Your task to perform on an android device: Search for vegetarian restaurants on Maps Image 0: 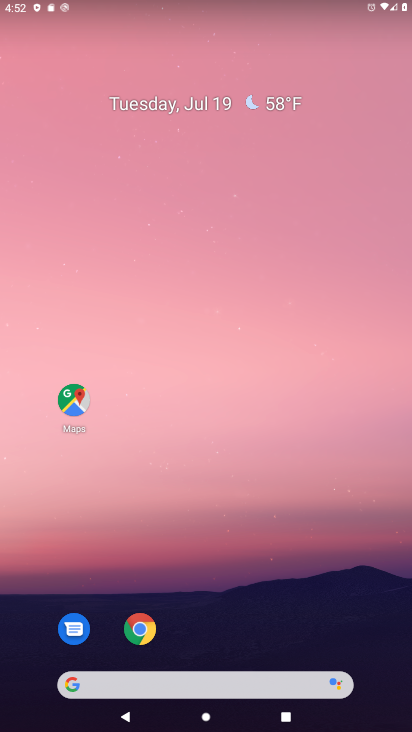
Step 0: click (153, 114)
Your task to perform on an android device: Search for vegetarian restaurants on Maps Image 1: 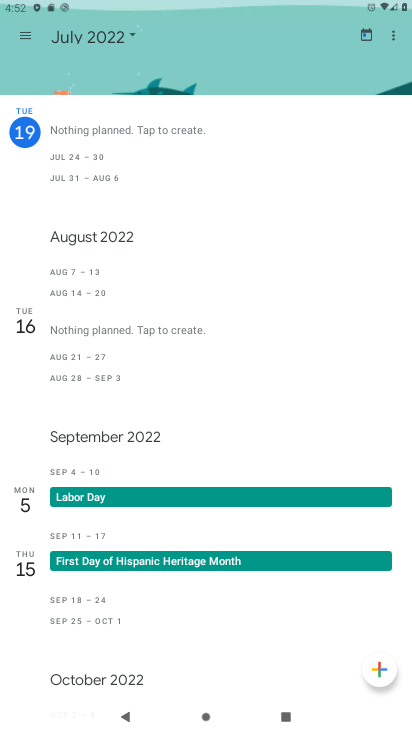
Step 1: press back button
Your task to perform on an android device: Search for vegetarian restaurants on Maps Image 2: 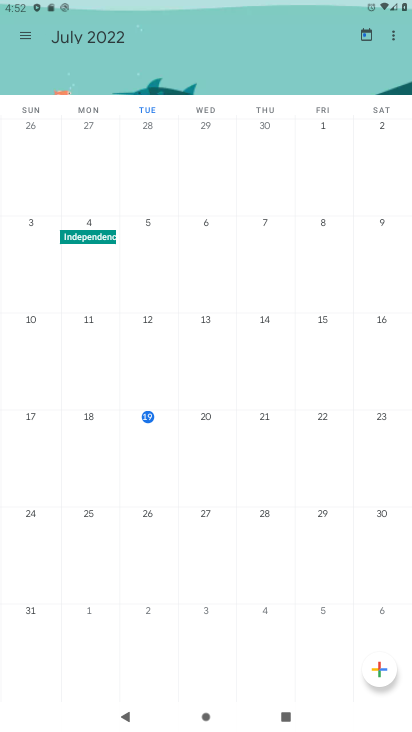
Step 2: press back button
Your task to perform on an android device: Search for vegetarian restaurants on Maps Image 3: 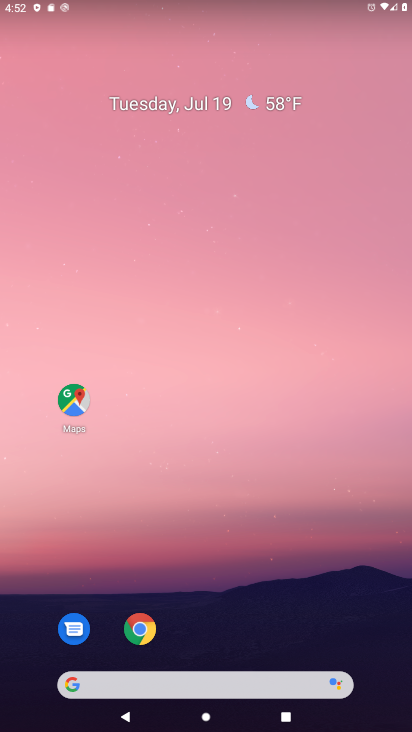
Step 3: drag from (252, 705) to (152, 123)
Your task to perform on an android device: Search for vegetarian restaurants on Maps Image 4: 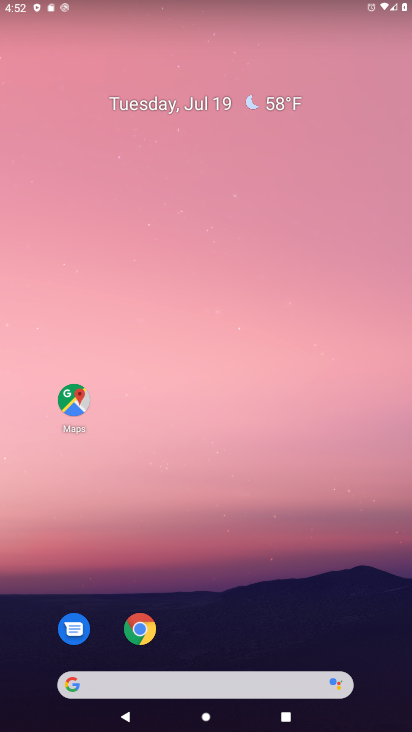
Step 4: drag from (231, 656) to (232, 105)
Your task to perform on an android device: Search for vegetarian restaurants on Maps Image 5: 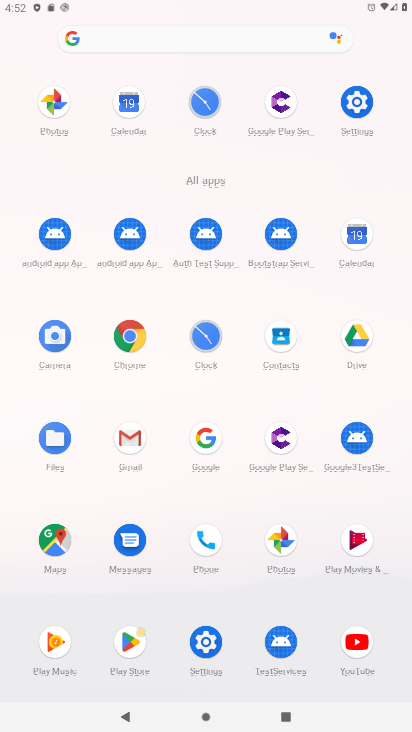
Step 5: click (43, 533)
Your task to perform on an android device: Search for vegetarian restaurants on Maps Image 6: 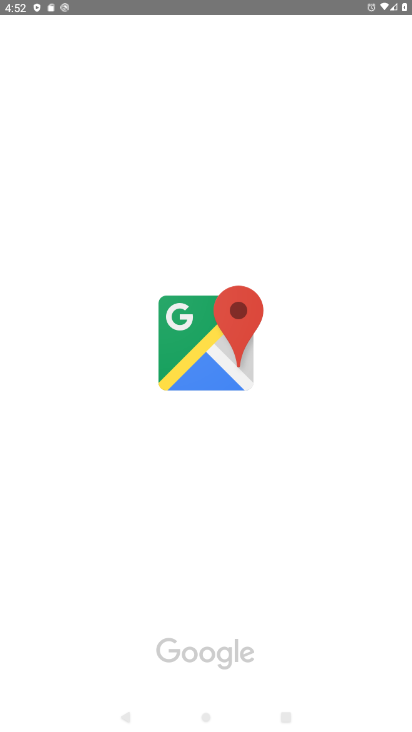
Step 6: click (42, 536)
Your task to perform on an android device: Search for vegetarian restaurants on Maps Image 7: 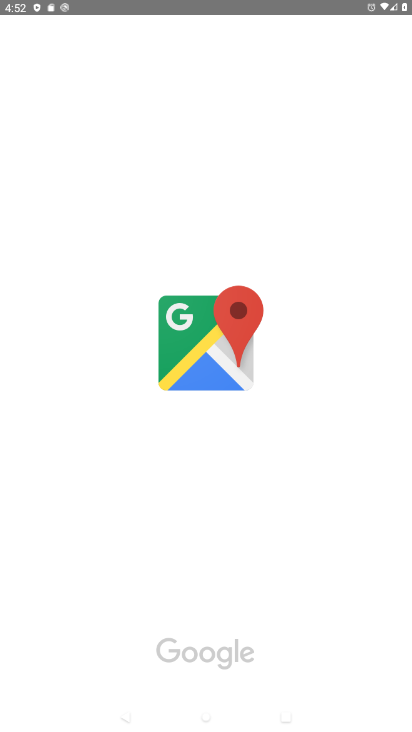
Step 7: click (42, 536)
Your task to perform on an android device: Search for vegetarian restaurants on Maps Image 8: 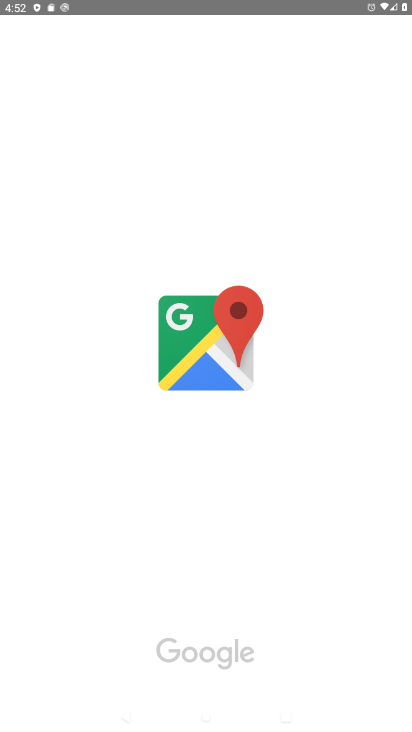
Step 8: click (199, 351)
Your task to perform on an android device: Search for vegetarian restaurants on Maps Image 9: 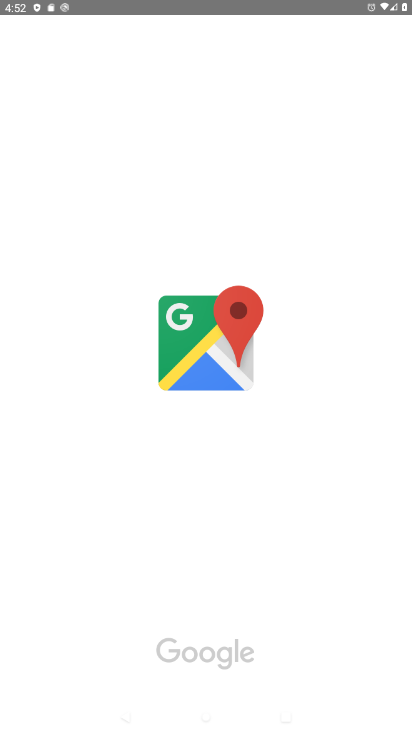
Step 9: click (200, 349)
Your task to perform on an android device: Search for vegetarian restaurants on Maps Image 10: 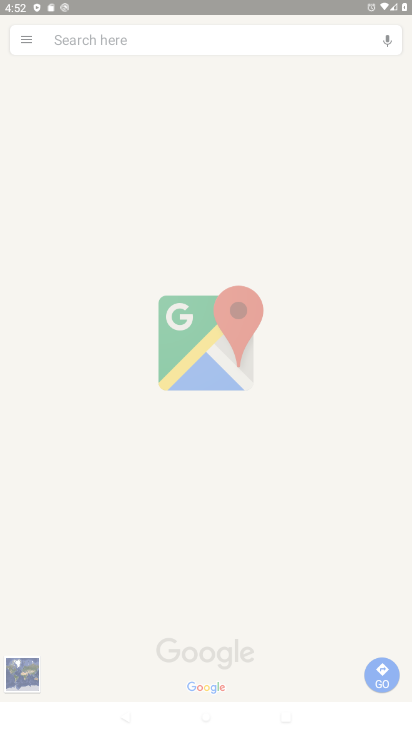
Step 10: click (217, 325)
Your task to perform on an android device: Search for vegetarian restaurants on Maps Image 11: 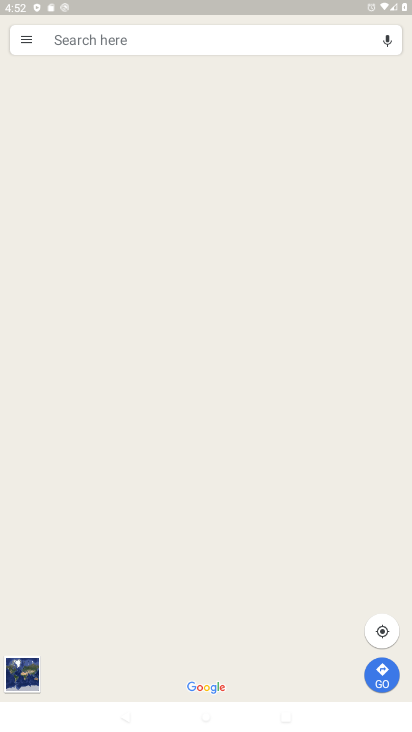
Step 11: click (216, 351)
Your task to perform on an android device: Search for vegetarian restaurants on Maps Image 12: 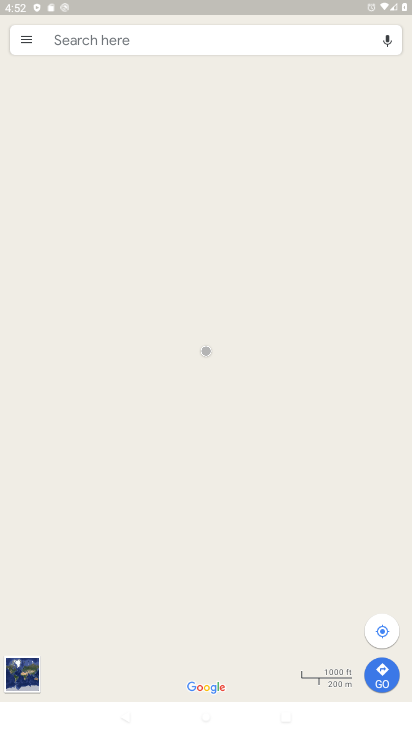
Step 12: click (73, 30)
Your task to perform on an android device: Search for vegetarian restaurants on Maps Image 13: 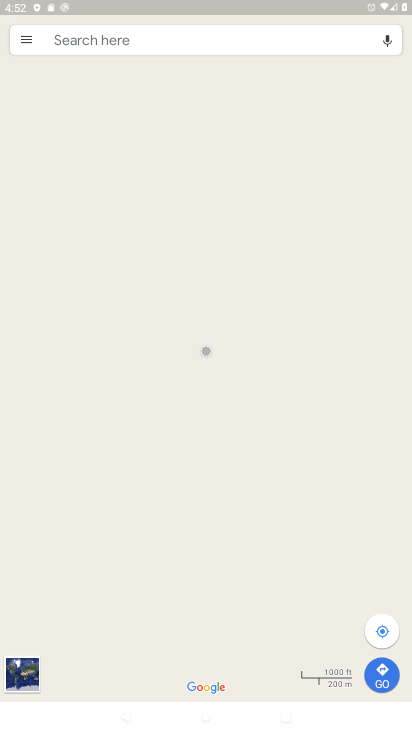
Step 13: click (85, 36)
Your task to perform on an android device: Search for vegetarian restaurants on Maps Image 14: 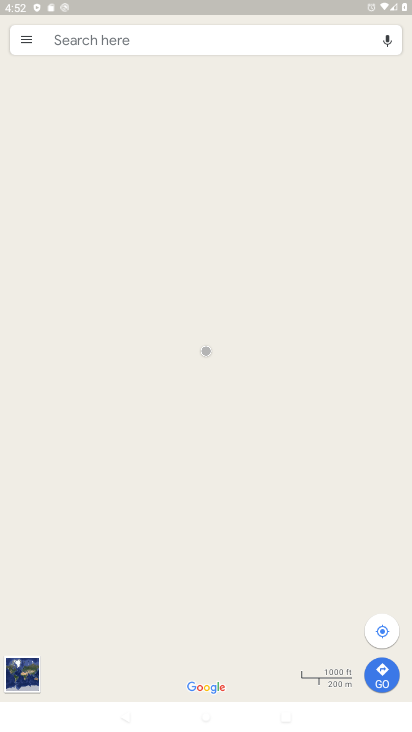
Step 14: click (86, 37)
Your task to perform on an android device: Search for vegetarian restaurants on Maps Image 15: 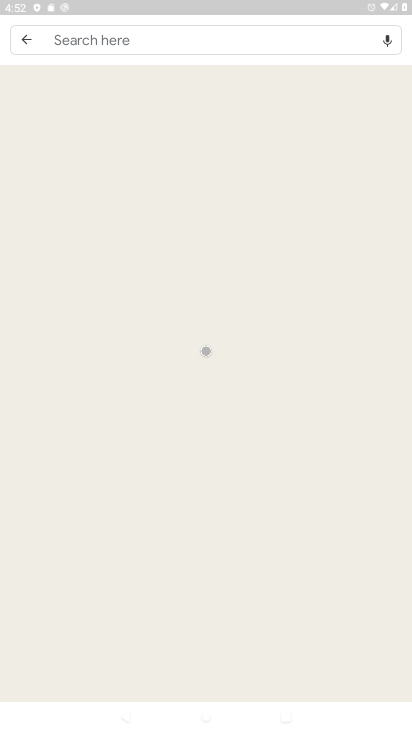
Step 15: click (83, 40)
Your task to perform on an android device: Search for vegetarian restaurants on Maps Image 16: 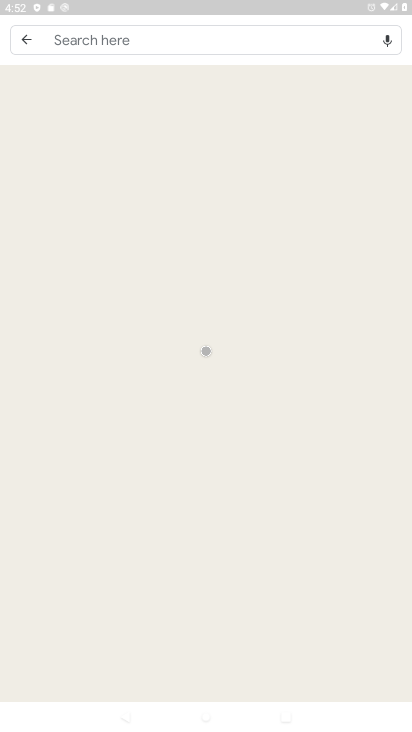
Step 16: click (84, 40)
Your task to perform on an android device: Search for vegetarian restaurants on Maps Image 17: 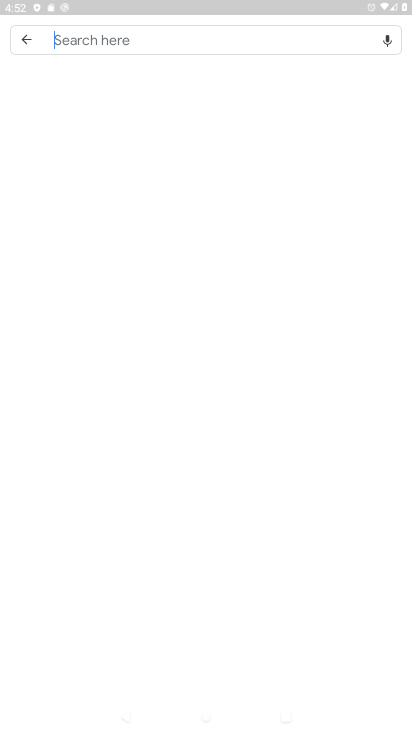
Step 17: click (84, 40)
Your task to perform on an android device: Search for vegetarian restaurants on Maps Image 18: 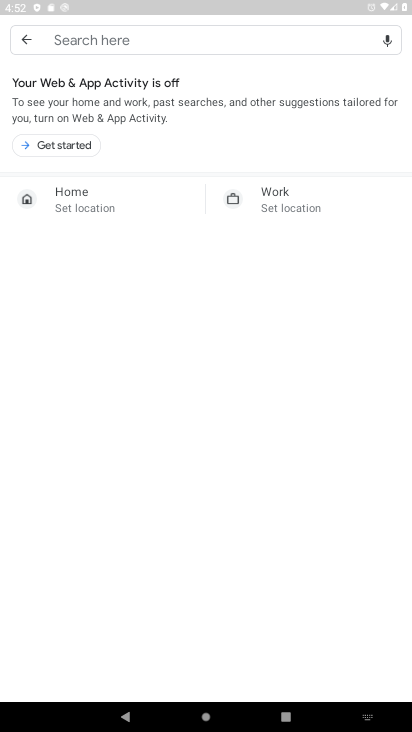
Step 18: click (84, 40)
Your task to perform on an android device: Search for vegetarian restaurants on Maps Image 19: 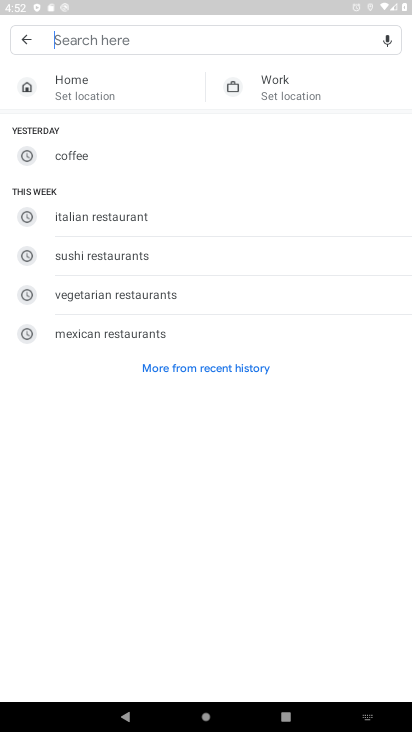
Step 19: click (105, 294)
Your task to perform on an android device: Search for vegetarian restaurants on Maps Image 20: 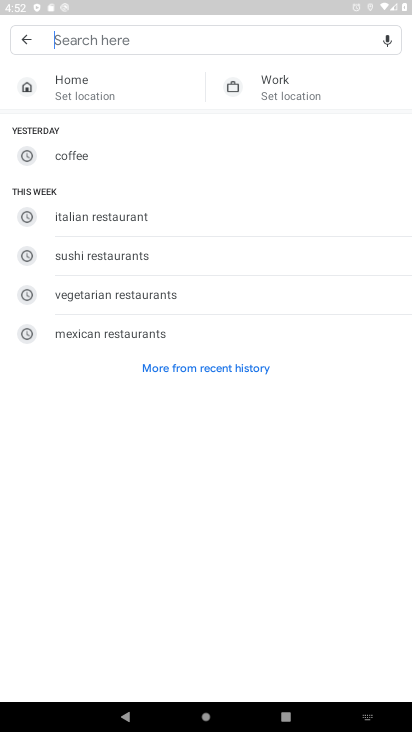
Step 20: click (105, 294)
Your task to perform on an android device: Search for vegetarian restaurants on Maps Image 21: 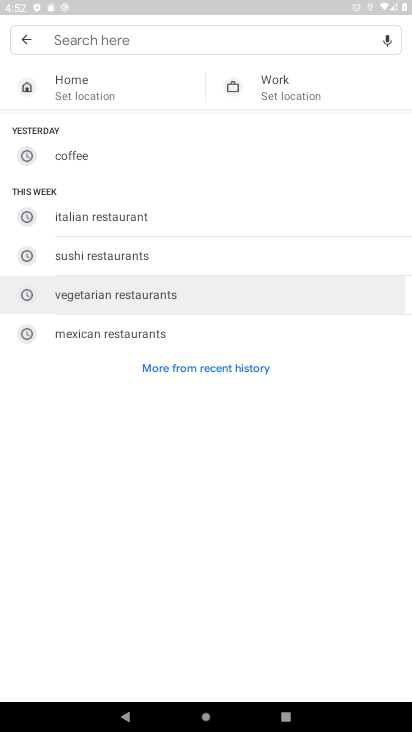
Step 21: click (105, 294)
Your task to perform on an android device: Search for vegetarian restaurants on Maps Image 22: 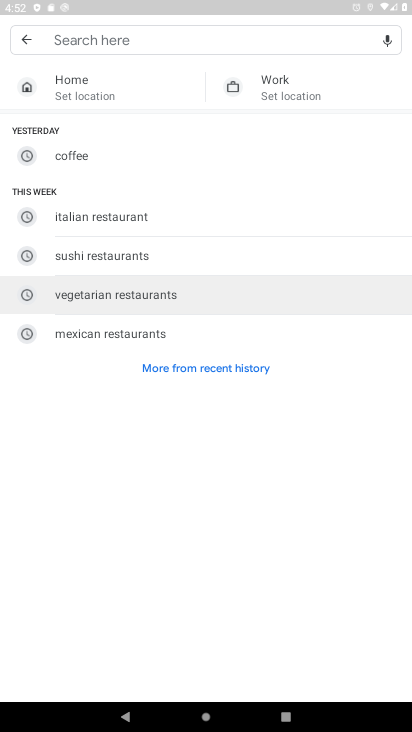
Step 22: click (105, 294)
Your task to perform on an android device: Search for vegetarian restaurants on Maps Image 23: 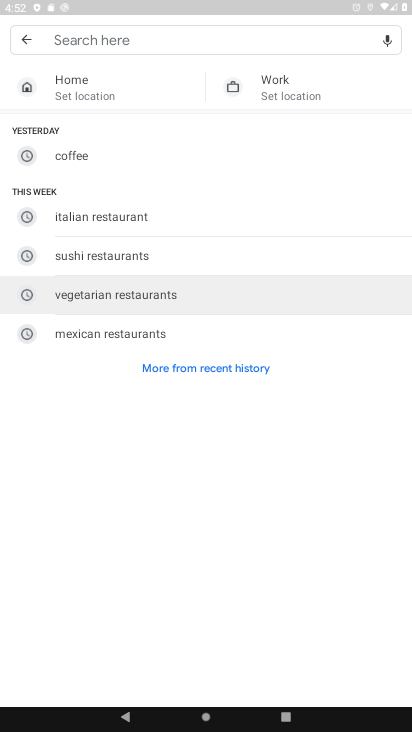
Step 23: click (105, 294)
Your task to perform on an android device: Search for vegetarian restaurants on Maps Image 24: 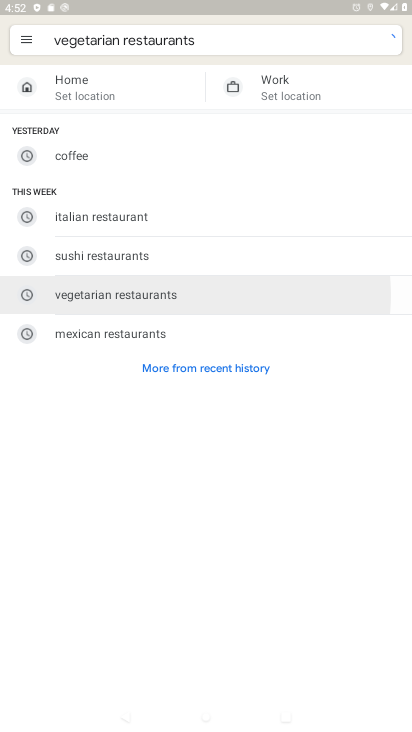
Step 24: click (105, 294)
Your task to perform on an android device: Search for vegetarian restaurants on Maps Image 25: 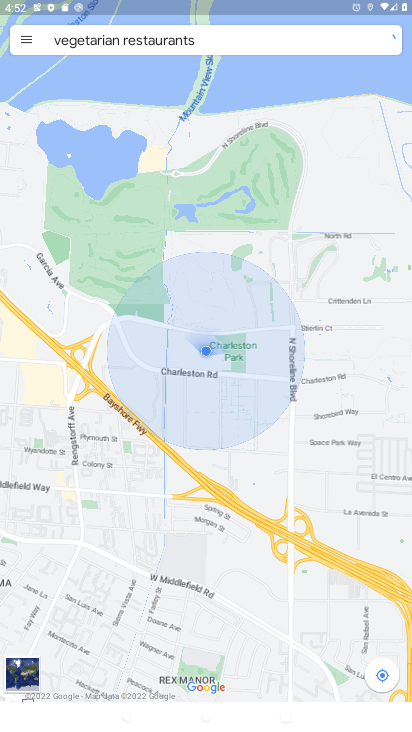
Step 25: task complete